Your task to perform on an android device: add a contact in the contacts app Image 0: 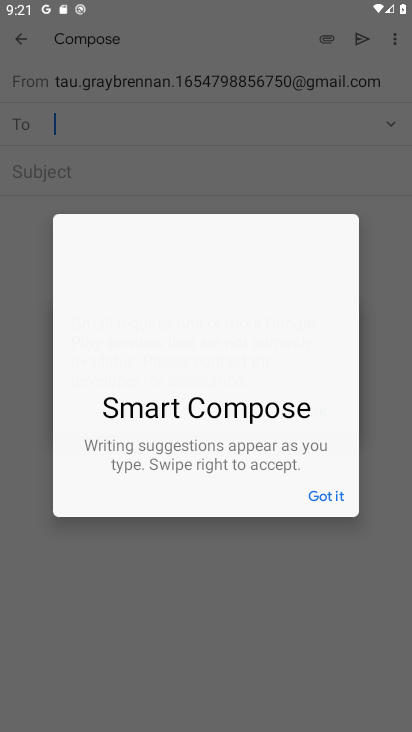
Step 0: drag from (275, 660) to (271, 407)
Your task to perform on an android device: add a contact in the contacts app Image 1: 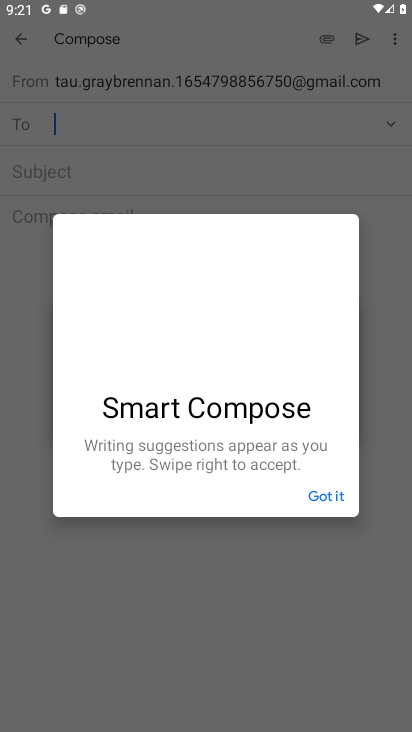
Step 1: click (324, 494)
Your task to perform on an android device: add a contact in the contacts app Image 2: 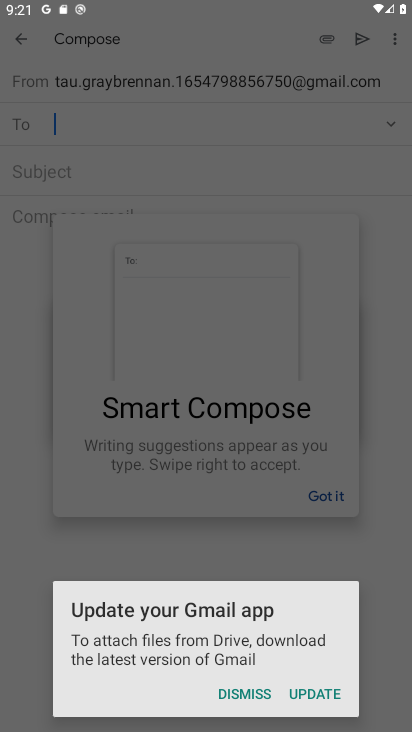
Step 2: click (324, 494)
Your task to perform on an android device: add a contact in the contacts app Image 3: 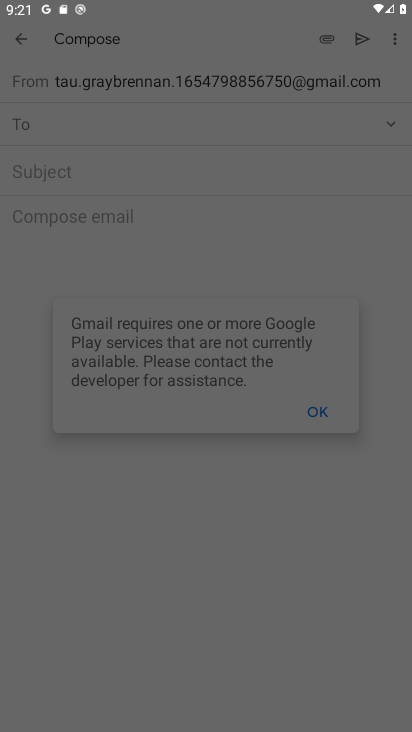
Step 3: click (322, 418)
Your task to perform on an android device: add a contact in the contacts app Image 4: 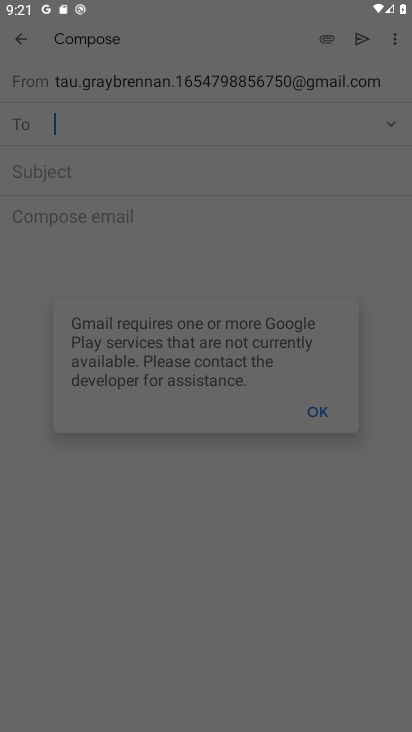
Step 4: click (322, 418)
Your task to perform on an android device: add a contact in the contacts app Image 5: 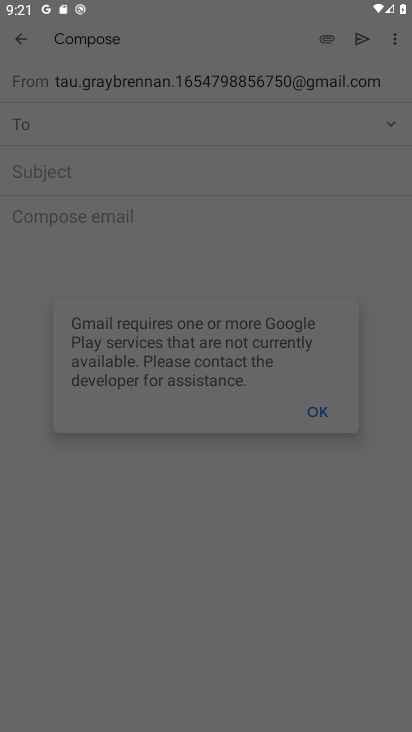
Step 5: click (323, 419)
Your task to perform on an android device: add a contact in the contacts app Image 6: 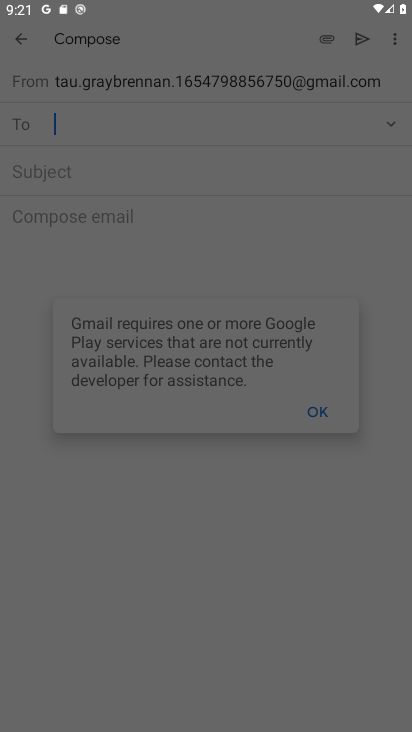
Step 6: click (324, 419)
Your task to perform on an android device: add a contact in the contacts app Image 7: 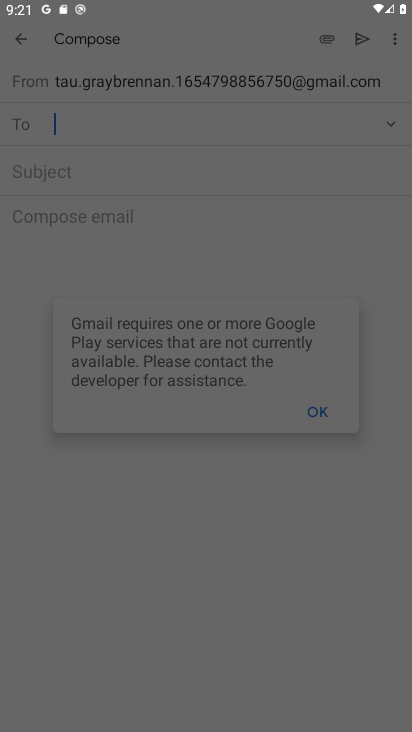
Step 7: click (326, 416)
Your task to perform on an android device: add a contact in the contacts app Image 8: 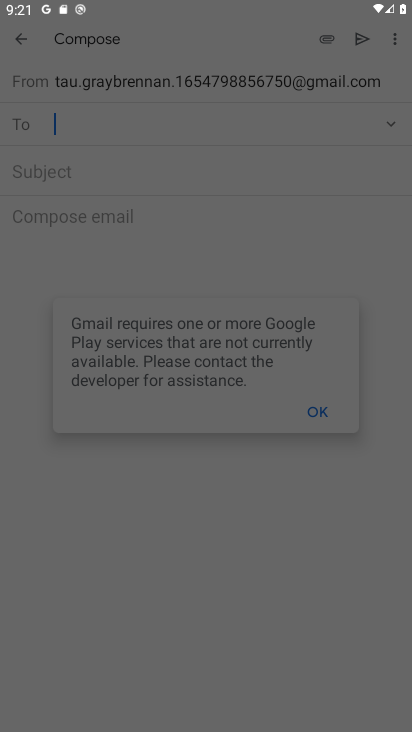
Step 8: click (327, 414)
Your task to perform on an android device: add a contact in the contacts app Image 9: 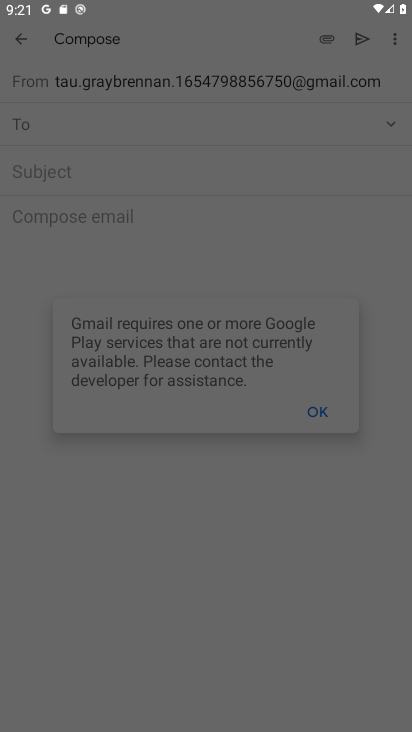
Step 9: click (329, 409)
Your task to perform on an android device: add a contact in the contacts app Image 10: 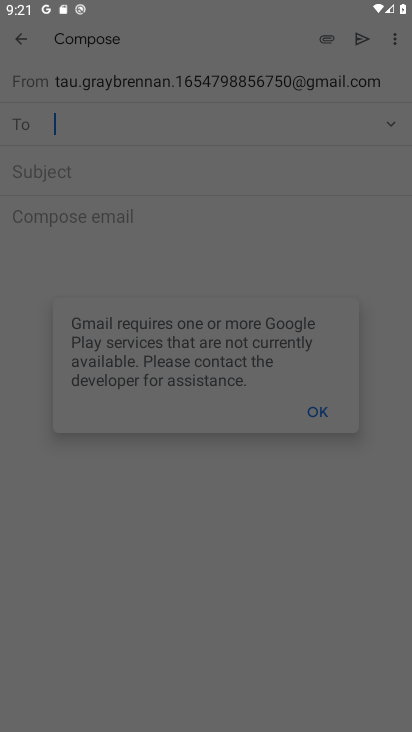
Step 10: click (330, 408)
Your task to perform on an android device: add a contact in the contacts app Image 11: 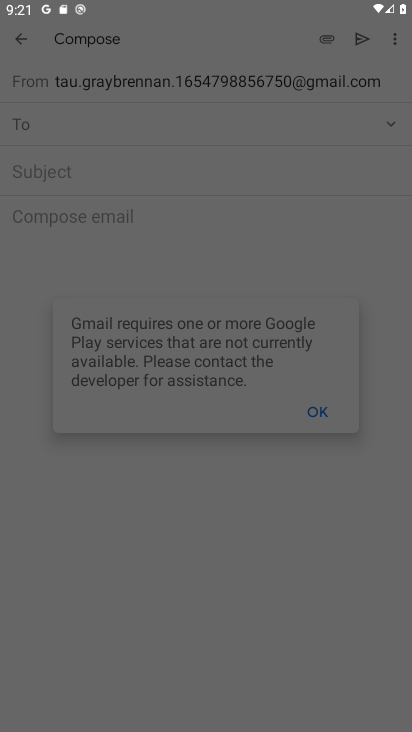
Step 11: click (272, 207)
Your task to perform on an android device: add a contact in the contacts app Image 12: 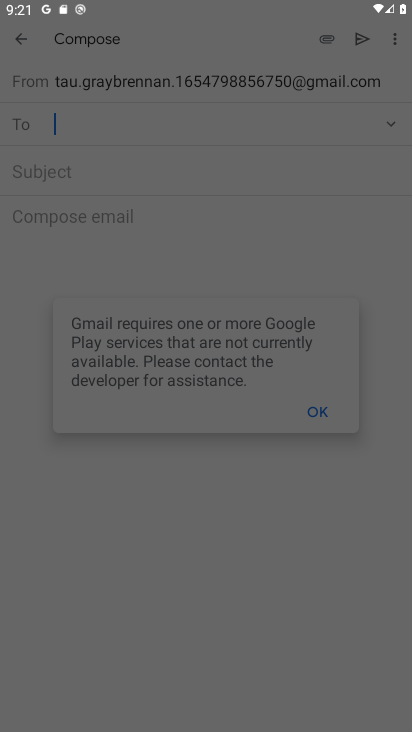
Step 12: click (14, 38)
Your task to perform on an android device: add a contact in the contacts app Image 13: 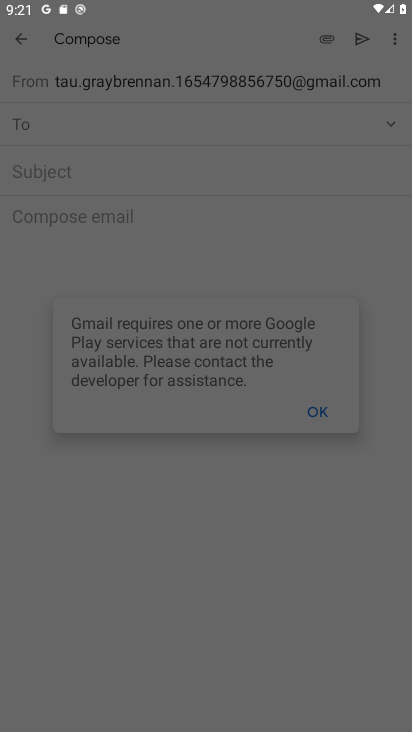
Step 13: press back button
Your task to perform on an android device: add a contact in the contacts app Image 14: 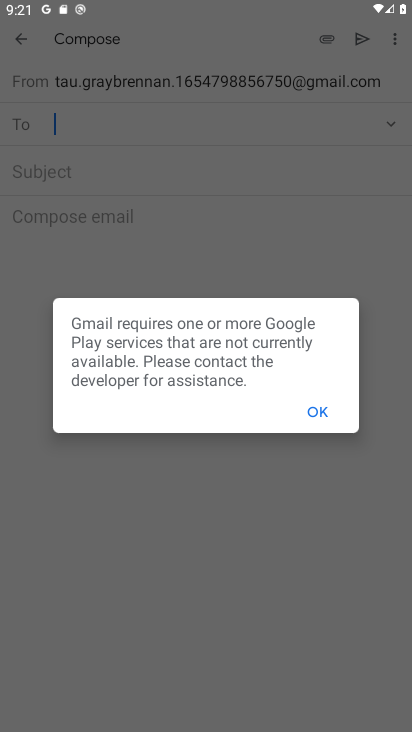
Step 14: press back button
Your task to perform on an android device: add a contact in the contacts app Image 15: 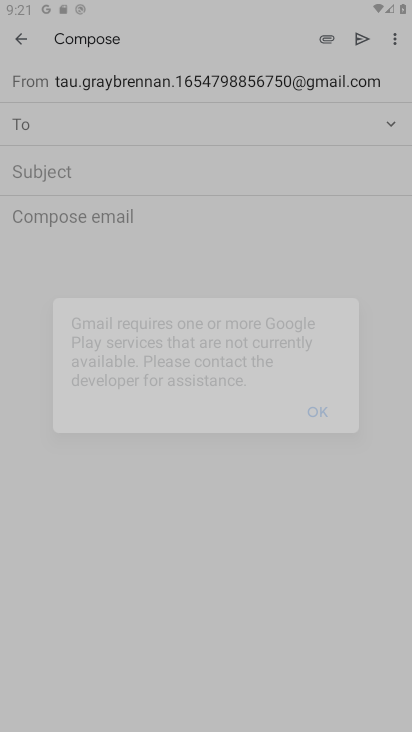
Step 15: press back button
Your task to perform on an android device: add a contact in the contacts app Image 16: 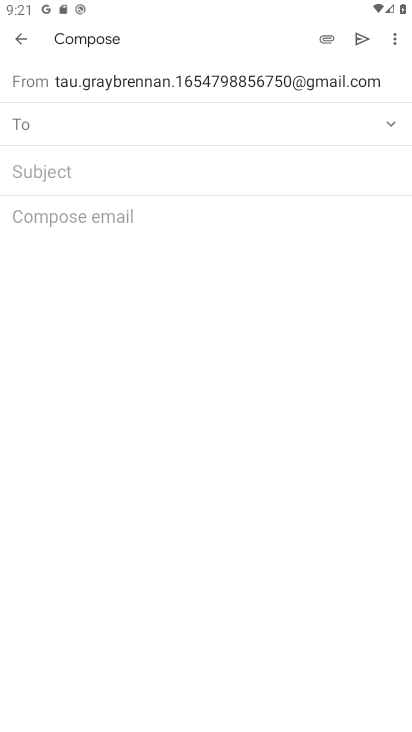
Step 16: press back button
Your task to perform on an android device: add a contact in the contacts app Image 17: 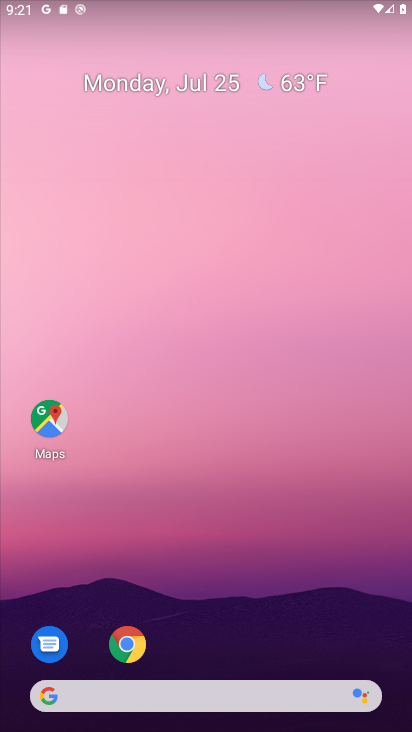
Step 17: click (24, 36)
Your task to perform on an android device: add a contact in the contacts app Image 18: 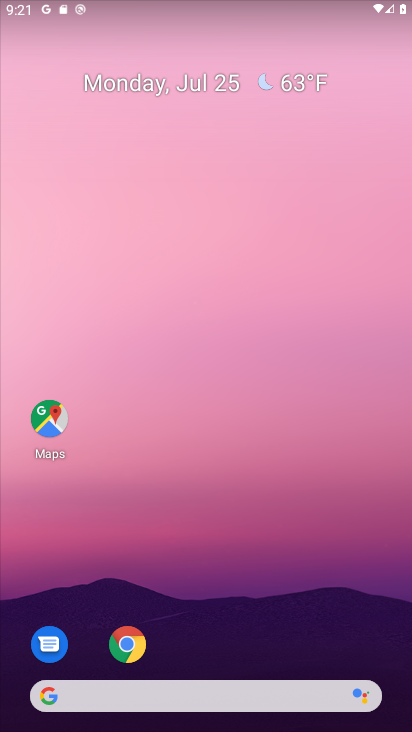
Step 18: click (25, 37)
Your task to perform on an android device: add a contact in the contacts app Image 19: 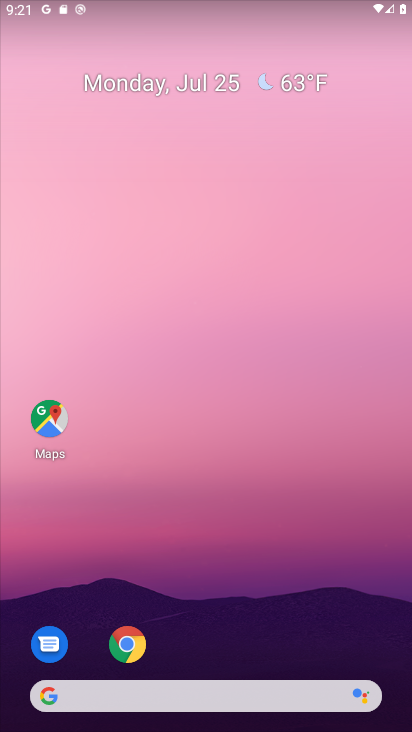
Step 19: drag from (307, 639) to (303, 275)
Your task to perform on an android device: add a contact in the contacts app Image 20: 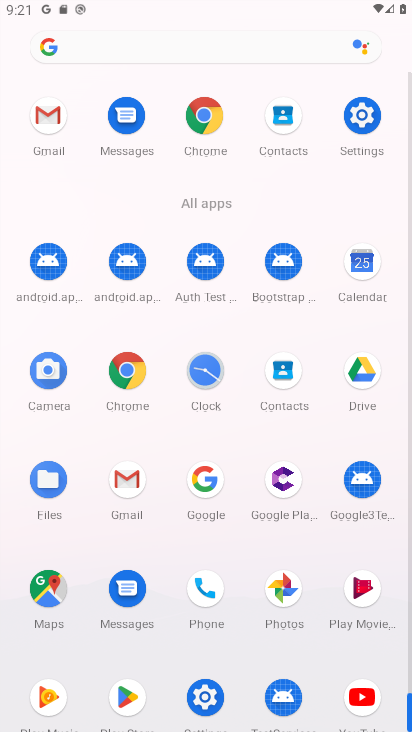
Step 20: click (289, 370)
Your task to perform on an android device: add a contact in the contacts app Image 21: 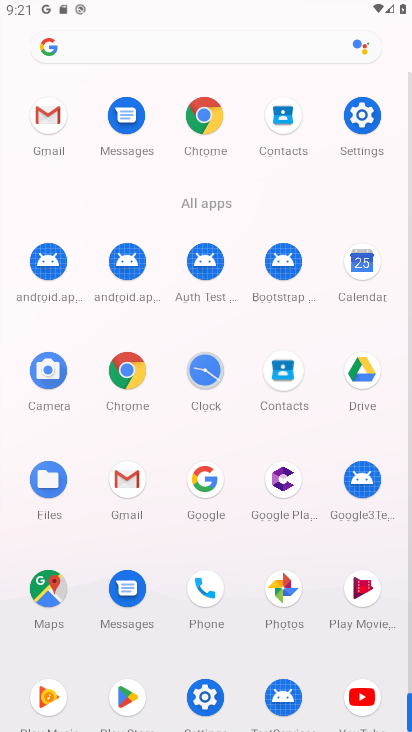
Step 21: click (280, 363)
Your task to perform on an android device: add a contact in the contacts app Image 22: 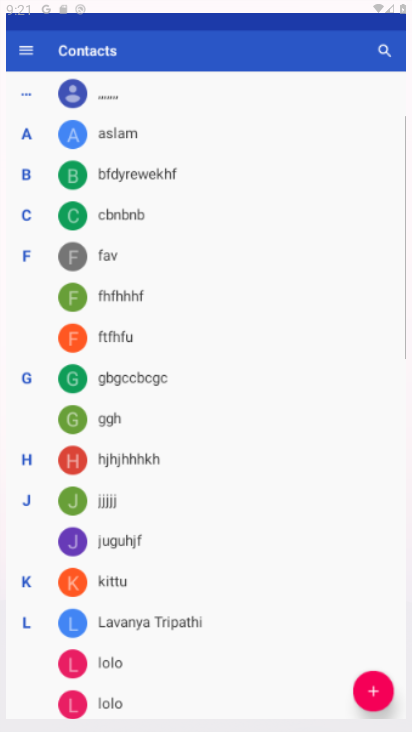
Step 22: click (280, 363)
Your task to perform on an android device: add a contact in the contacts app Image 23: 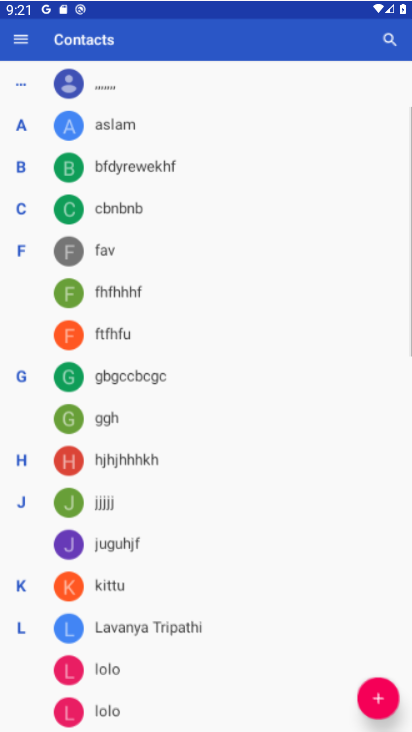
Step 23: click (256, 375)
Your task to perform on an android device: add a contact in the contacts app Image 24: 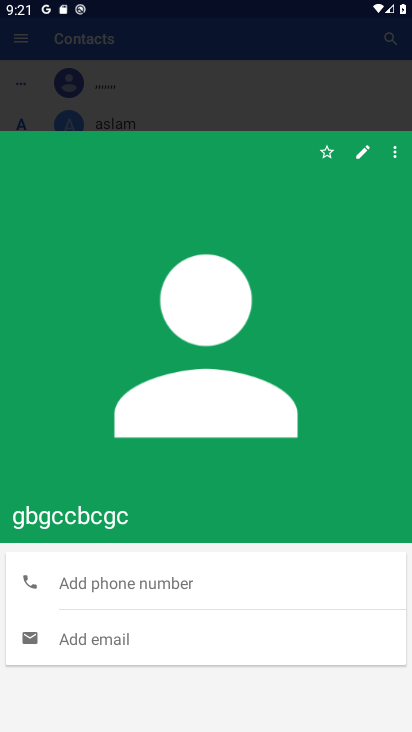
Step 24: click (378, 95)
Your task to perform on an android device: add a contact in the contacts app Image 25: 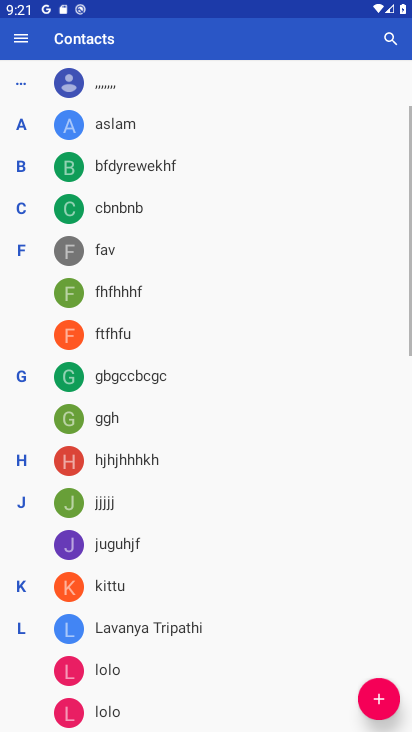
Step 25: click (378, 96)
Your task to perform on an android device: add a contact in the contacts app Image 26: 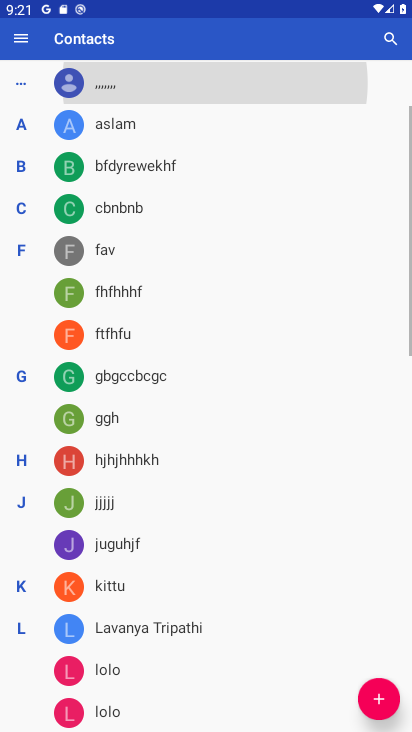
Step 26: click (378, 96)
Your task to perform on an android device: add a contact in the contacts app Image 27: 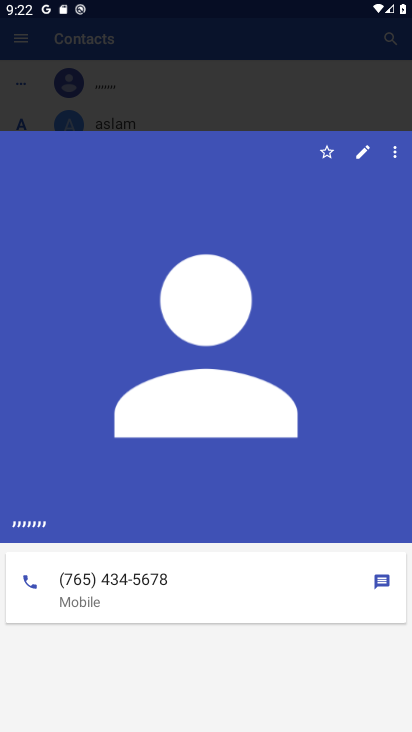
Step 27: click (391, 154)
Your task to perform on an android device: add a contact in the contacts app Image 28: 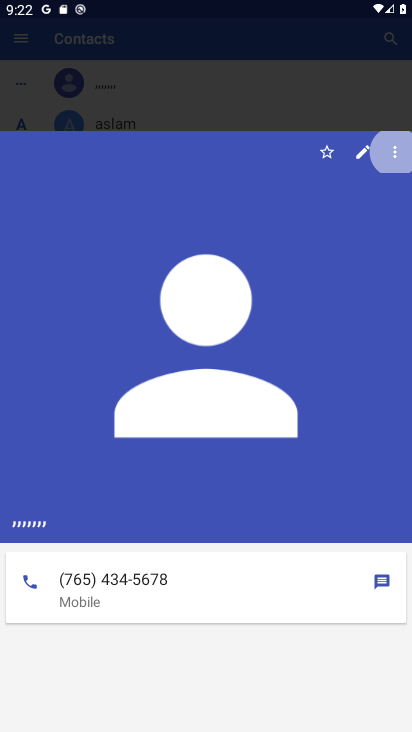
Step 28: click (397, 154)
Your task to perform on an android device: add a contact in the contacts app Image 29: 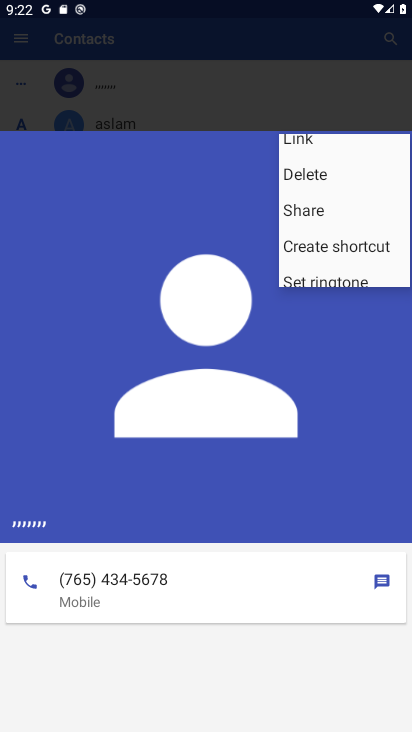
Step 29: click (397, 154)
Your task to perform on an android device: add a contact in the contacts app Image 30: 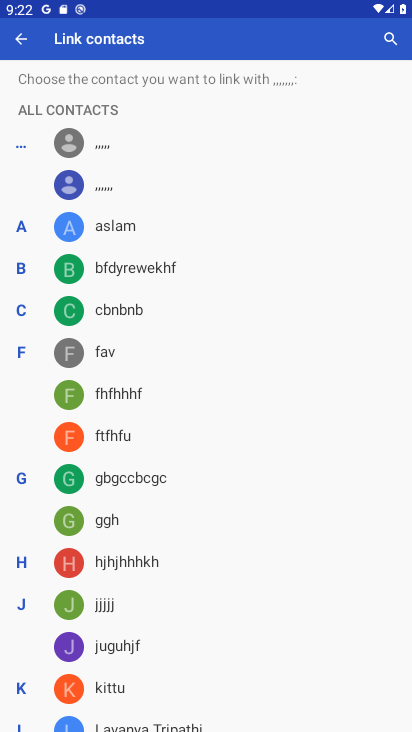
Step 30: task complete